Your task to perform on an android device: What's the weather? Image 0: 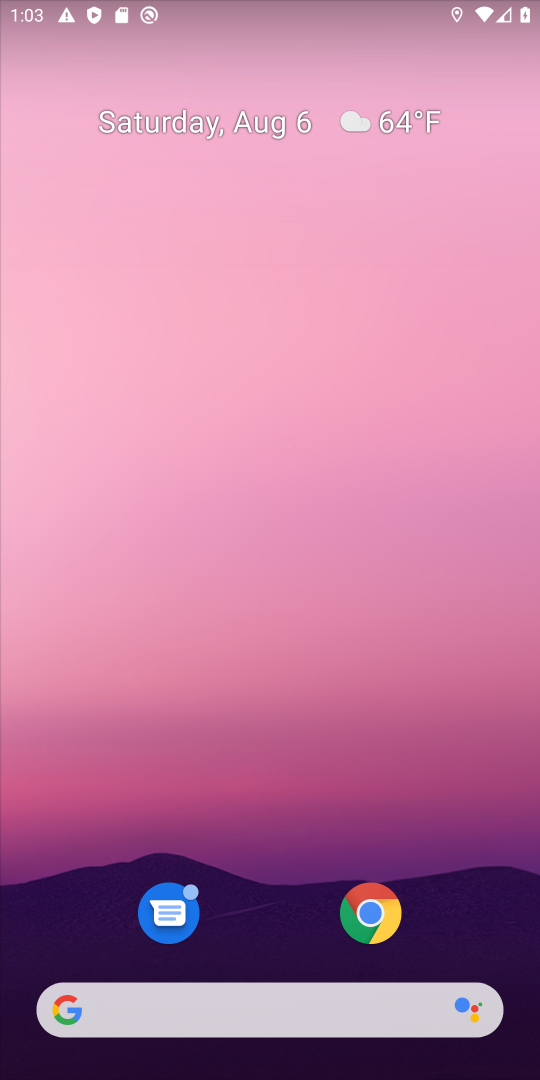
Step 0: click (307, 1011)
Your task to perform on an android device: What's the weather? Image 1: 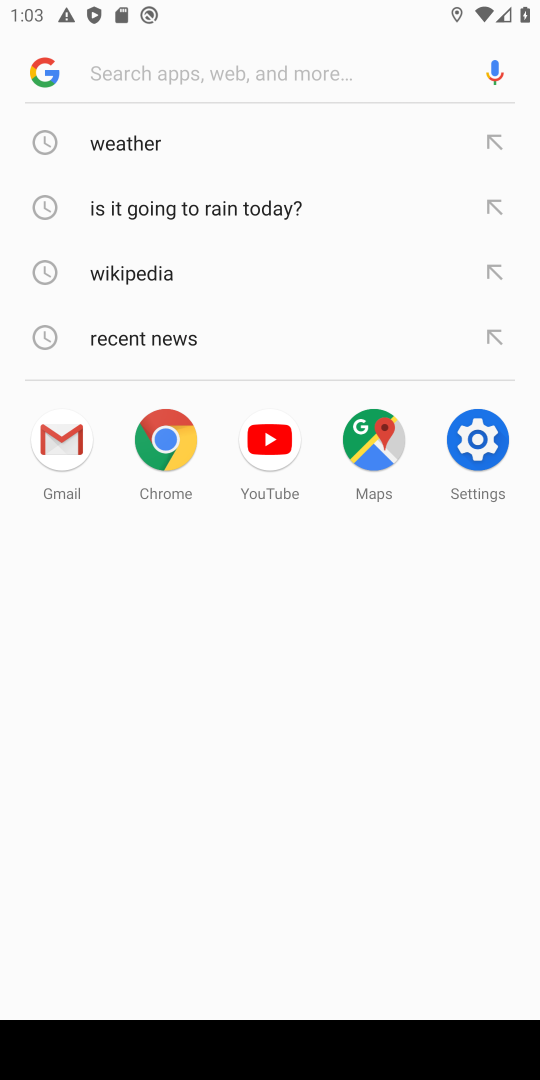
Step 1: click (151, 139)
Your task to perform on an android device: What's the weather? Image 2: 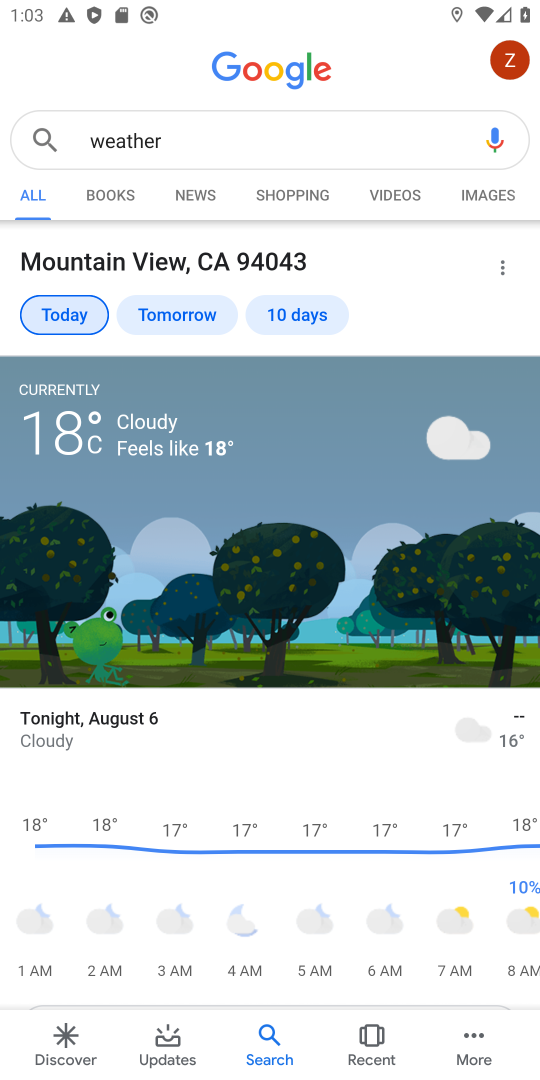
Step 2: task complete